Your task to perform on an android device: turn on location history Image 0: 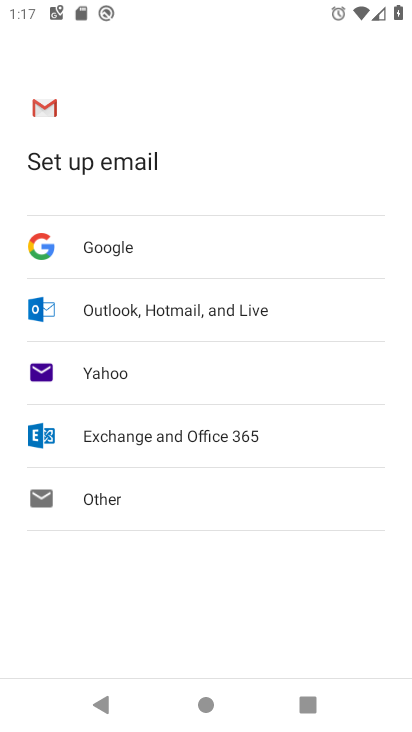
Step 0: press home button
Your task to perform on an android device: turn on location history Image 1: 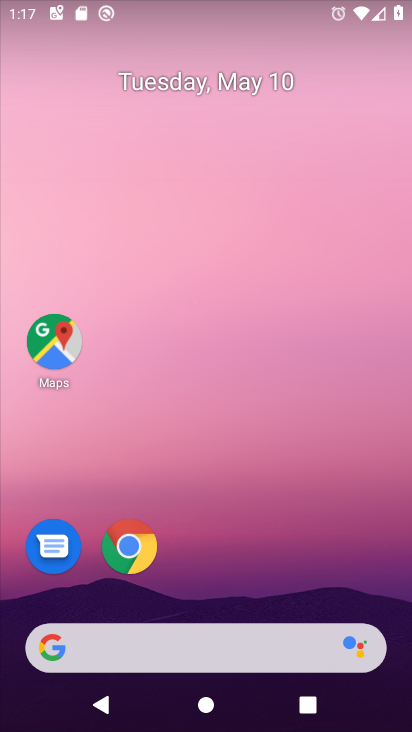
Step 1: click (36, 349)
Your task to perform on an android device: turn on location history Image 2: 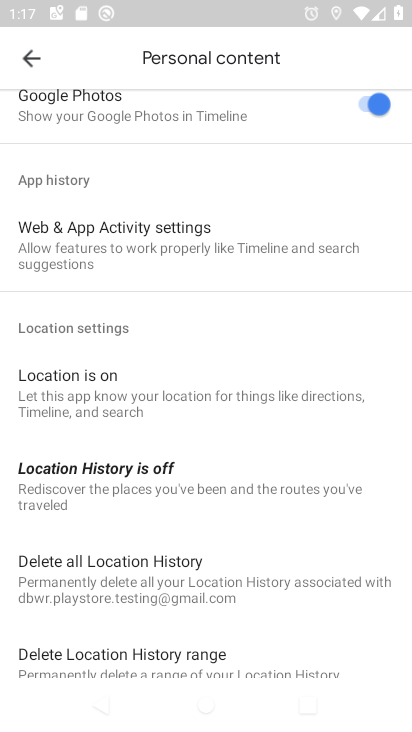
Step 2: click (104, 460)
Your task to perform on an android device: turn on location history Image 3: 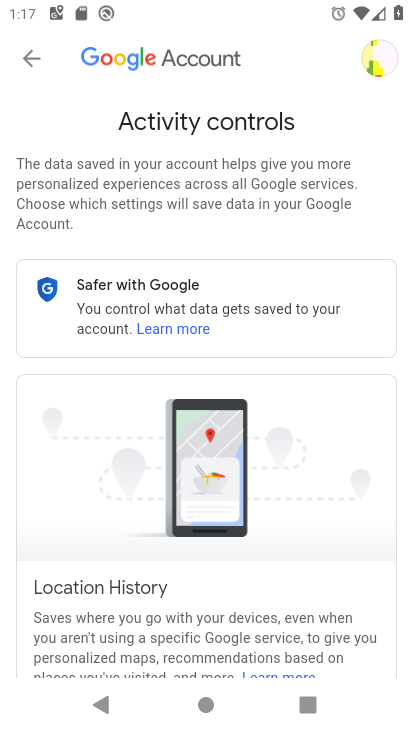
Step 3: task complete